Your task to perform on an android device: turn vacation reply on in the gmail app Image 0: 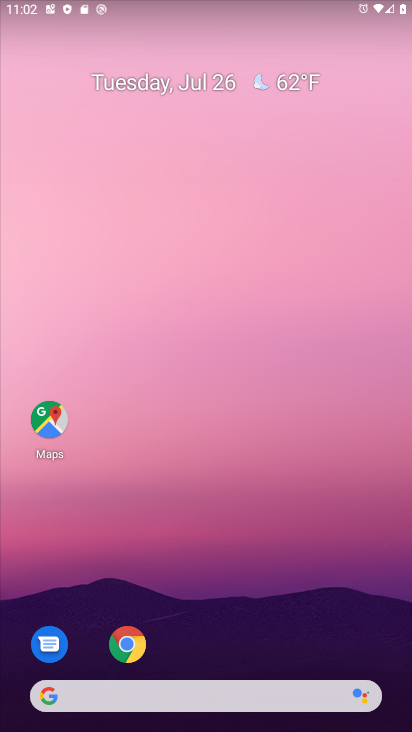
Step 0: drag from (212, 643) to (227, 225)
Your task to perform on an android device: turn vacation reply on in the gmail app Image 1: 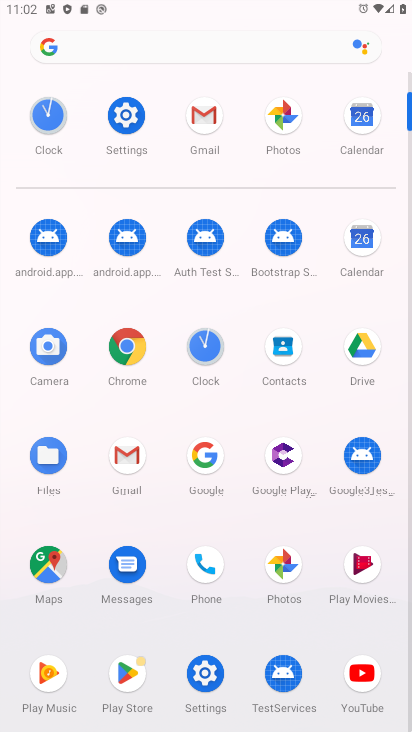
Step 1: click (124, 446)
Your task to perform on an android device: turn vacation reply on in the gmail app Image 2: 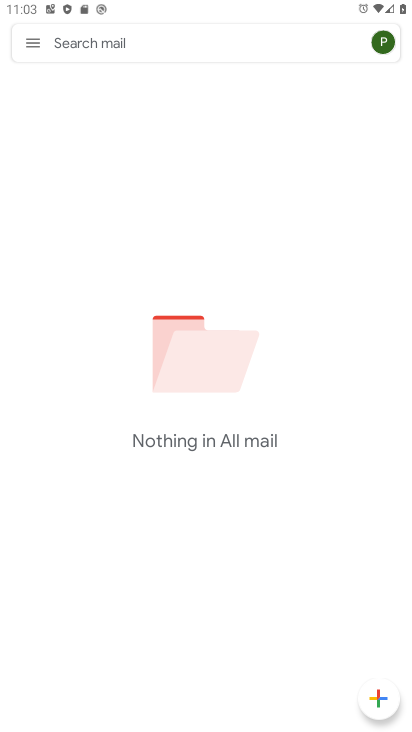
Step 2: click (24, 45)
Your task to perform on an android device: turn vacation reply on in the gmail app Image 3: 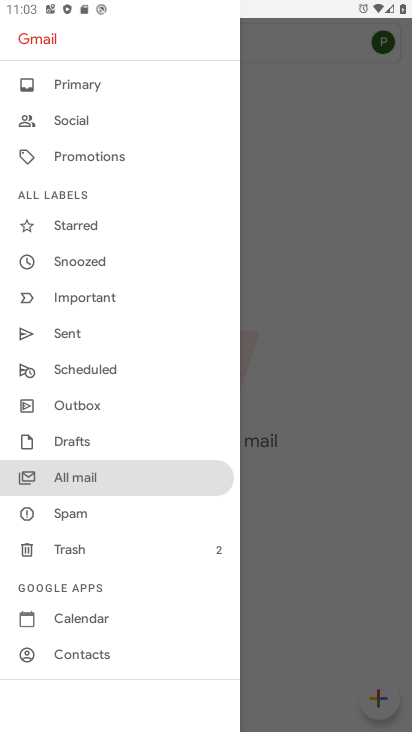
Step 3: drag from (141, 701) to (96, 454)
Your task to perform on an android device: turn vacation reply on in the gmail app Image 4: 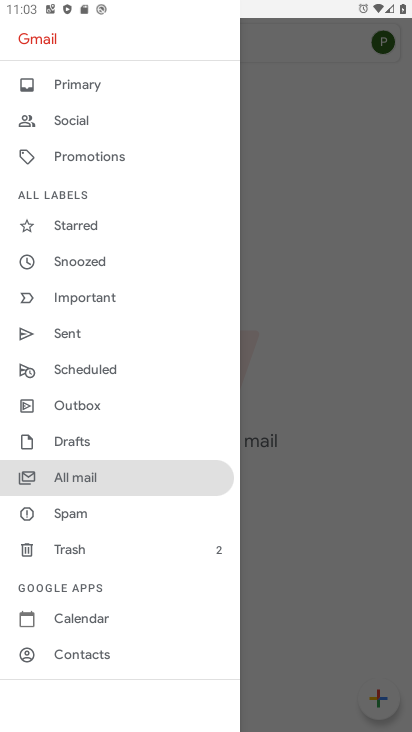
Step 4: drag from (131, 682) to (114, 550)
Your task to perform on an android device: turn vacation reply on in the gmail app Image 5: 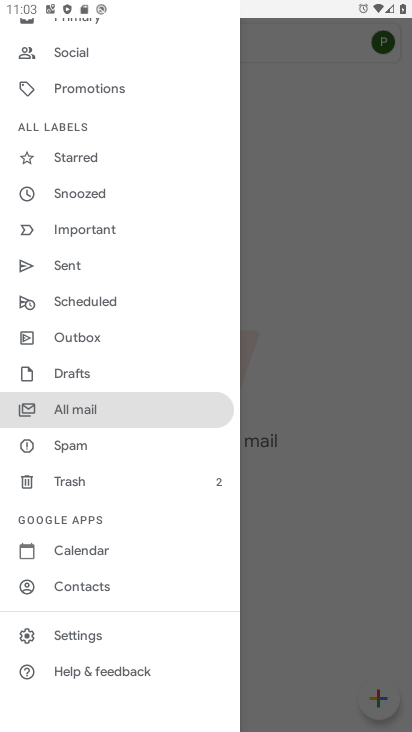
Step 5: click (109, 635)
Your task to perform on an android device: turn vacation reply on in the gmail app Image 6: 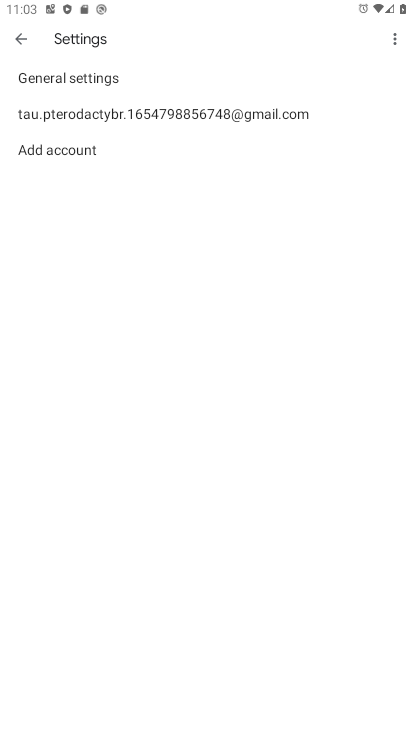
Step 6: click (97, 112)
Your task to perform on an android device: turn vacation reply on in the gmail app Image 7: 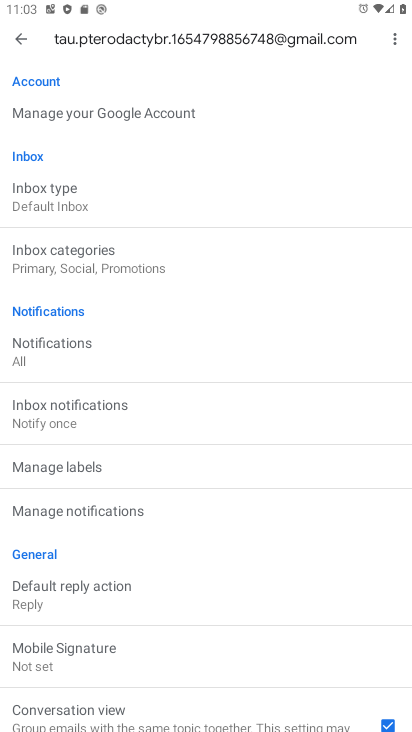
Step 7: task complete